Your task to perform on an android device: uninstall "Skype" Image 0: 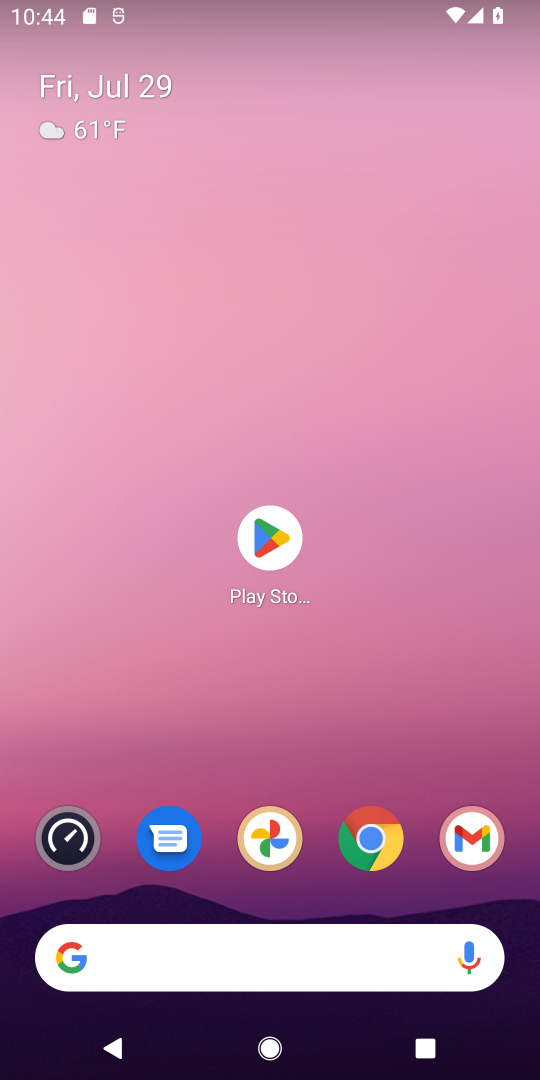
Step 0: press home button
Your task to perform on an android device: uninstall "Skype" Image 1: 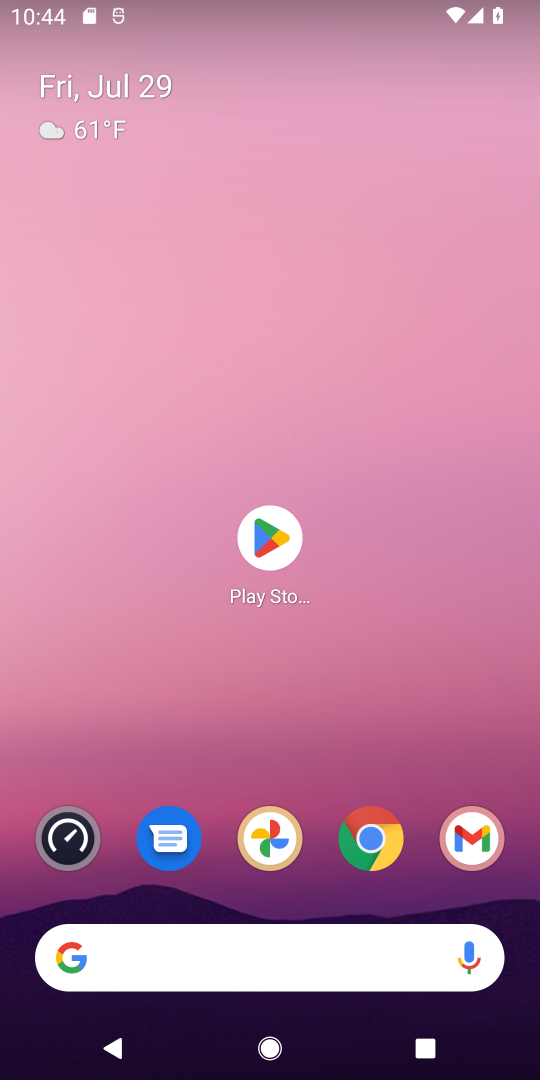
Step 1: click (274, 548)
Your task to perform on an android device: uninstall "Skype" Image 2: 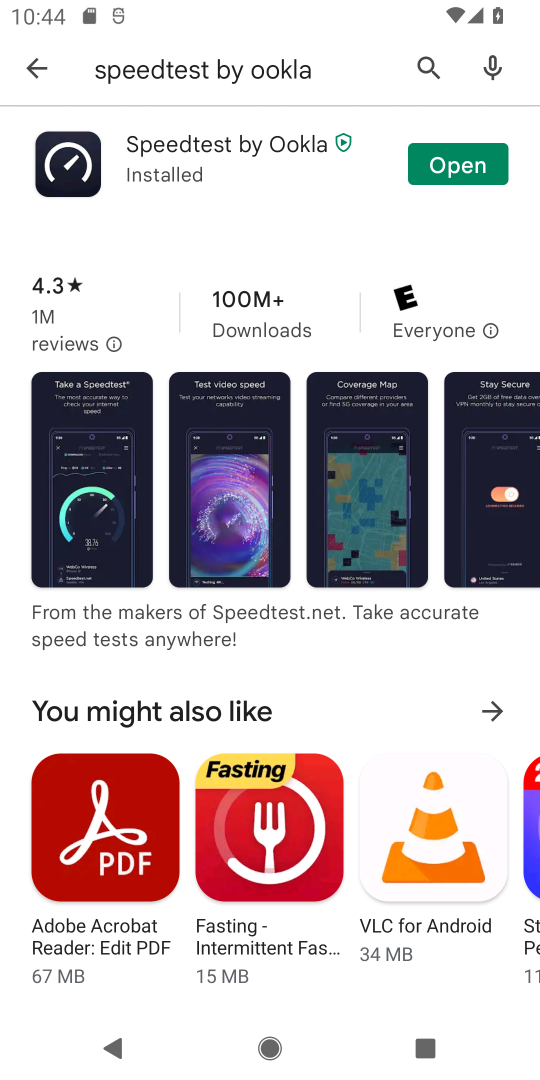
Step 2: click (431, 65)
Your task to perform on an android device: uninstall "Skype" Image 3: 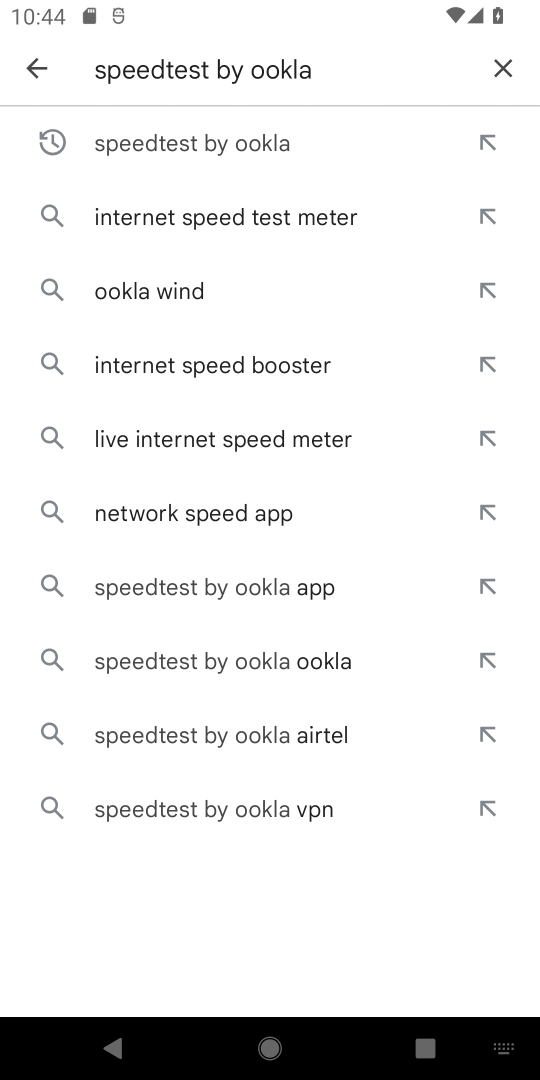
Step 3: click (495, 60)
Your task to perform on an android device: uninstall "Skype" Image 4: 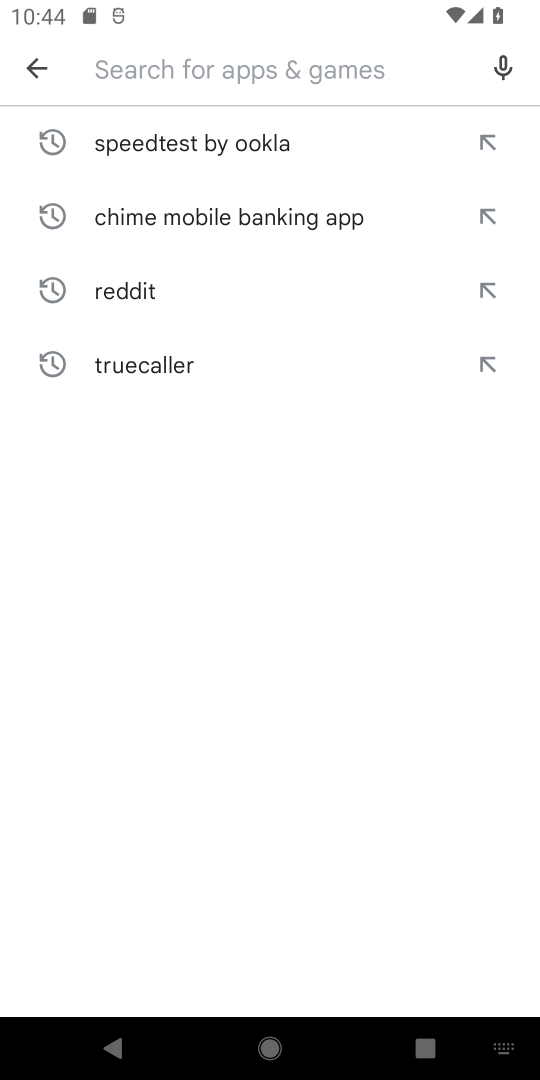
Step 4: type "Skype"
Your task to perform on an android device: uninstall "Skype" Image 5: 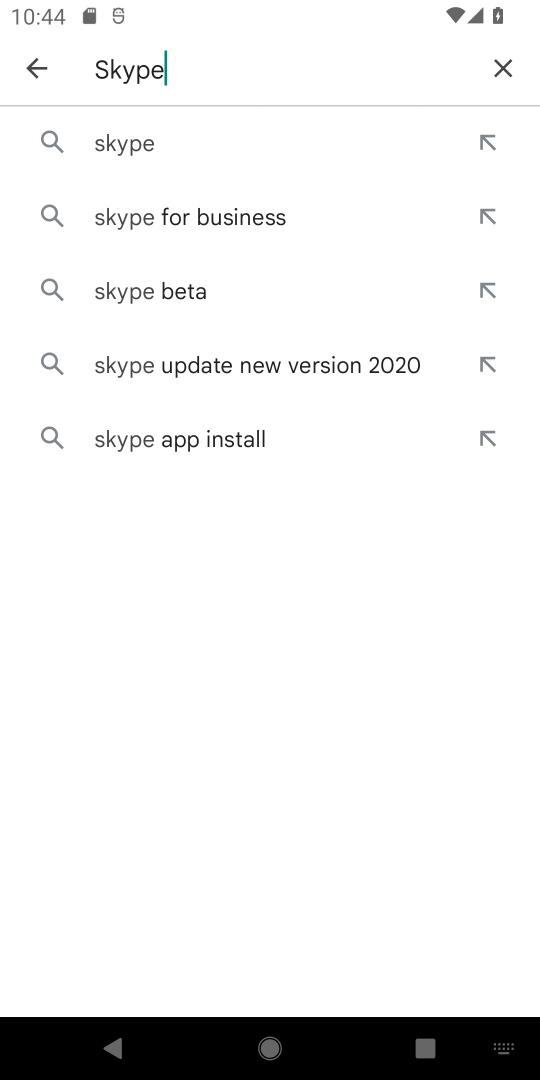
Step 5: click (119, 140)
Your task to perform on an android device: uninstall "Skype" Image 6: 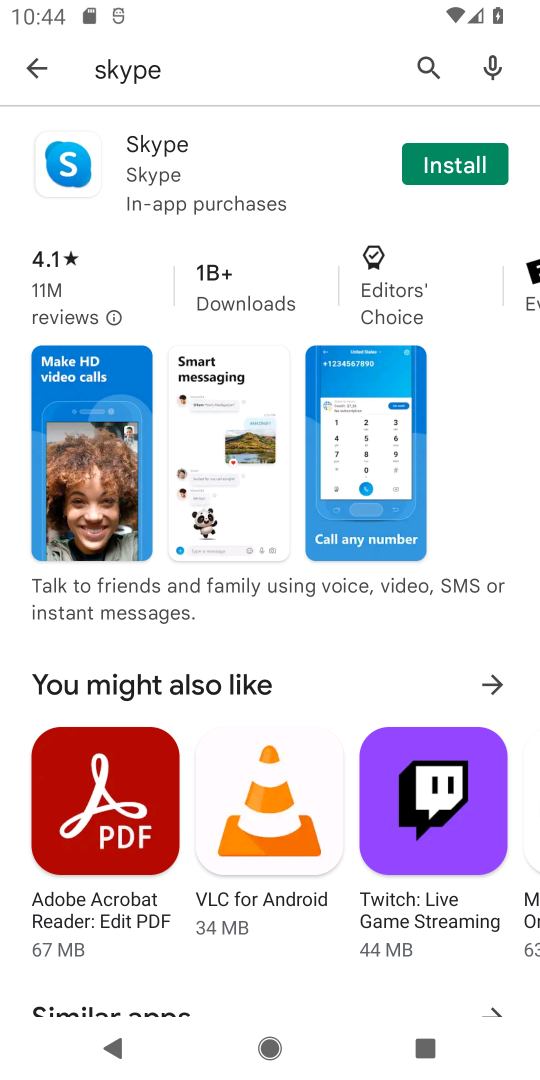
Step 6: task complete